Your task to perform on an android device: snooze an email in the gmail app Image 0: 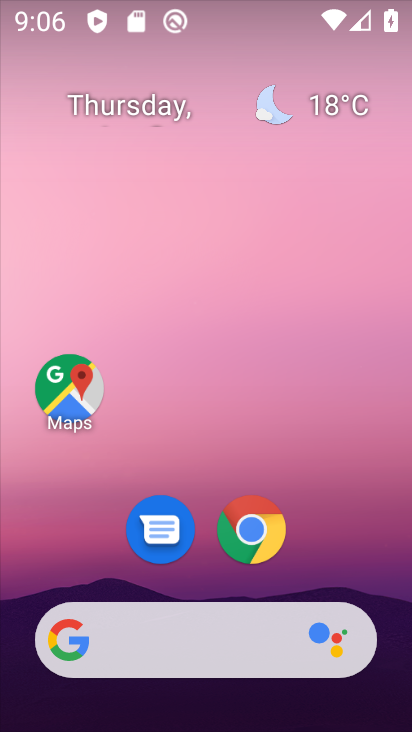
Step 0: click (357, 560)
Your task to perform on an android device: snooze an email in the gmail app Image 1: 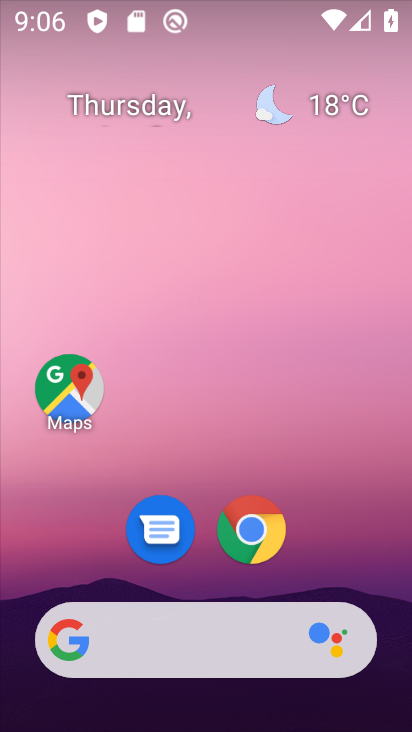
Step 1: drag from (392, 657) to (377, 156)
Your task to perform on an android device: snooze an email in the gmail app Image 2: 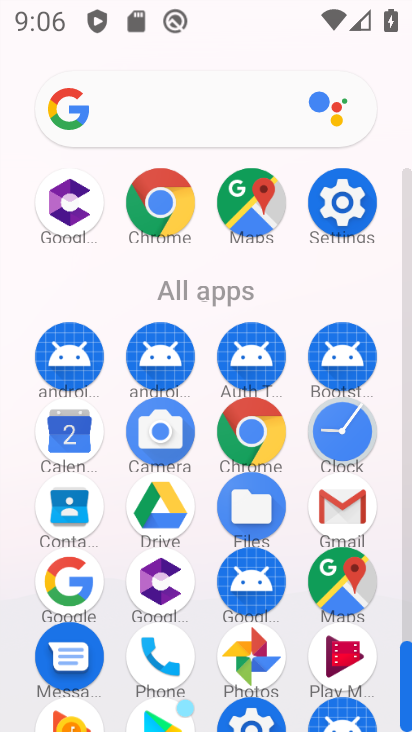
Step 2: click (338, 514)
Your task to perform on an android device: snooze an email in the gmail app Image 3: 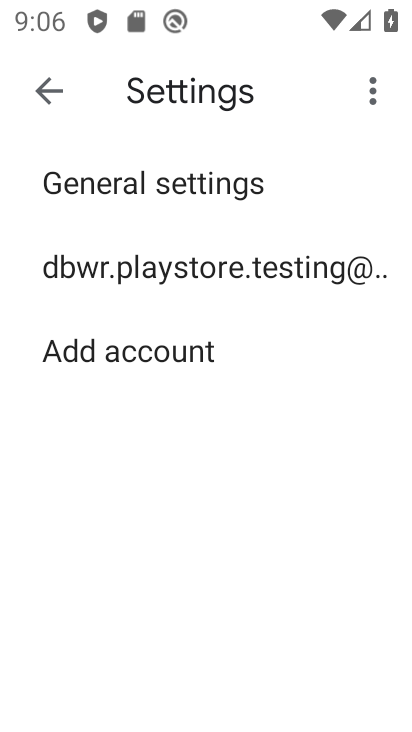
Step 3: click (38, 104)
Your task to perform on an android device: snooze an email in the gmail app Image 4: 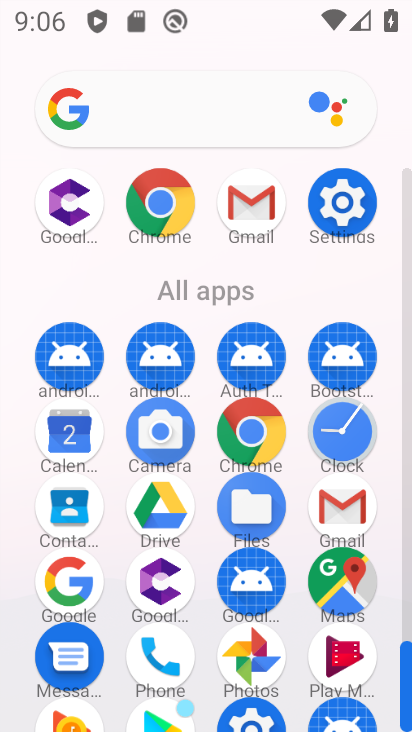
Step 4: click (247, 206)
Your task to perform on an android device: snooze an email in the gmail app Image 5: 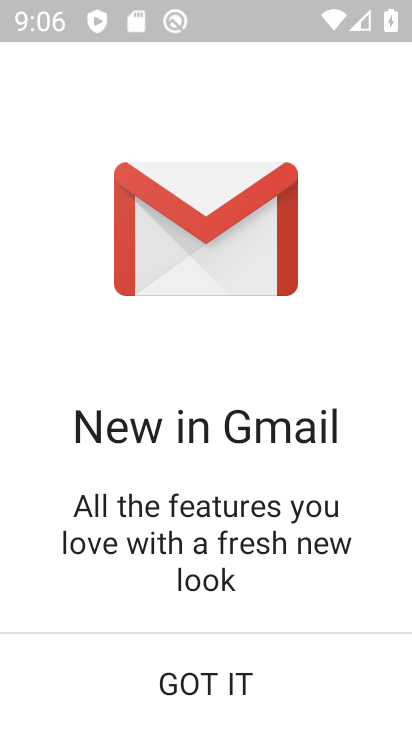
Step 5: click (182, 667)
Your task to perform on an android device: snooze an email in the gmail app Image 6: 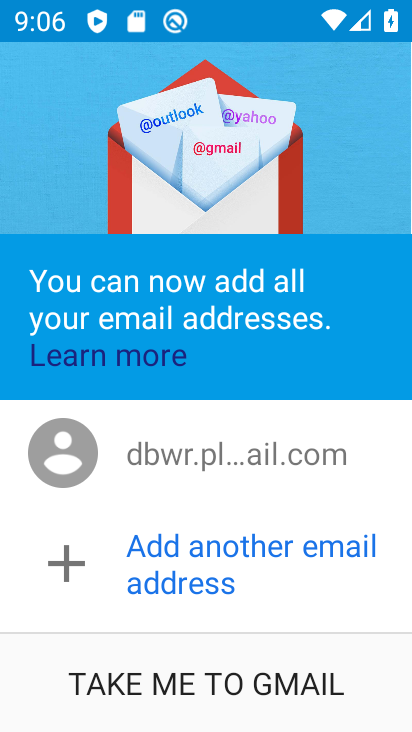
Step 6: click (233, 670)
Your task to perform on an android device: snooze an email in the gmail app Image 7: 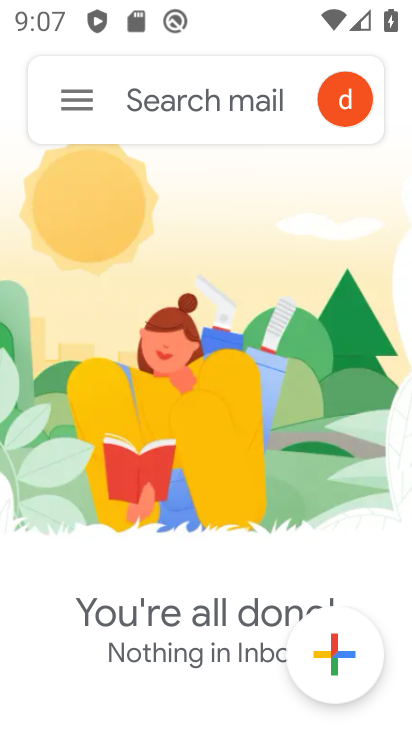
Step 7: click (74, 95)
Your task to perform on an android device: snooze an email in the gmail app Image 8: 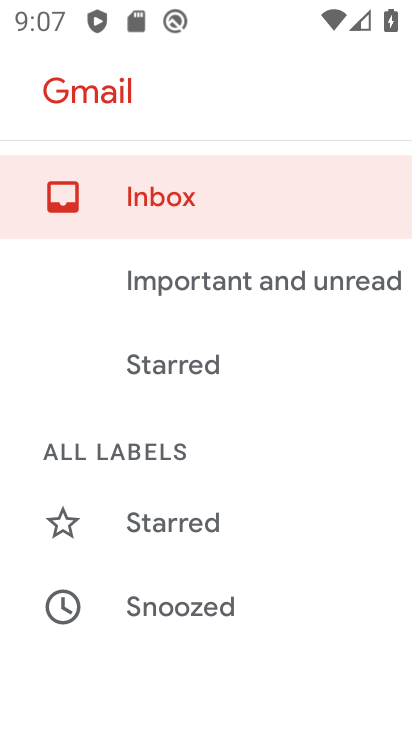
Step 8: click (178, 207)
Your task to perform on an android device: snooze an email in the gmail app Image 9: 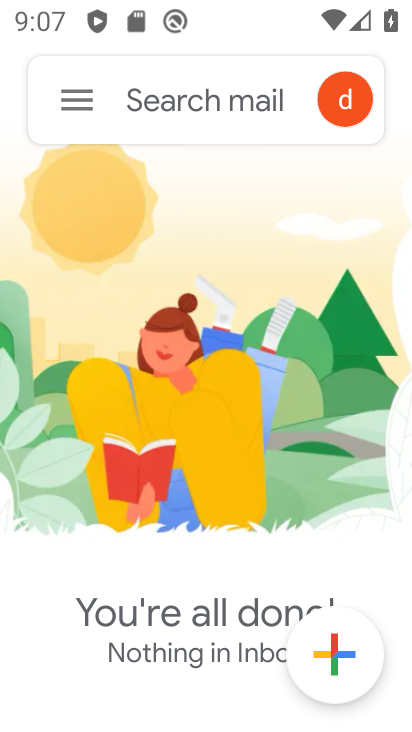
Step 9: task complete